Your task to perform on an android device: Go to Reddit.com Image 0: 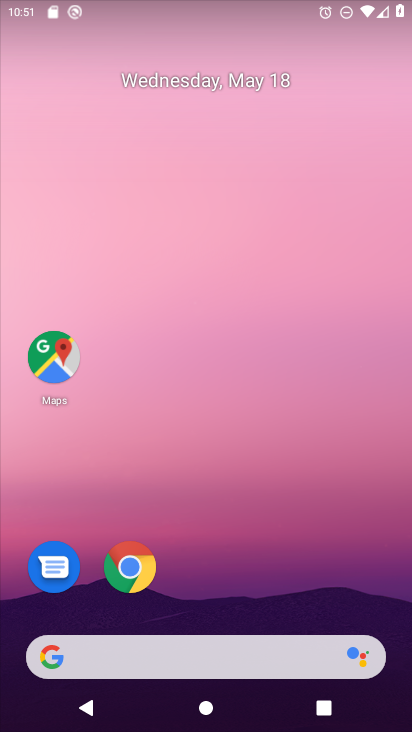
Step 0: drag from (240, 670) to (306, 80)
Your task to perform on an android device: Go to Reddit.com Image 1: 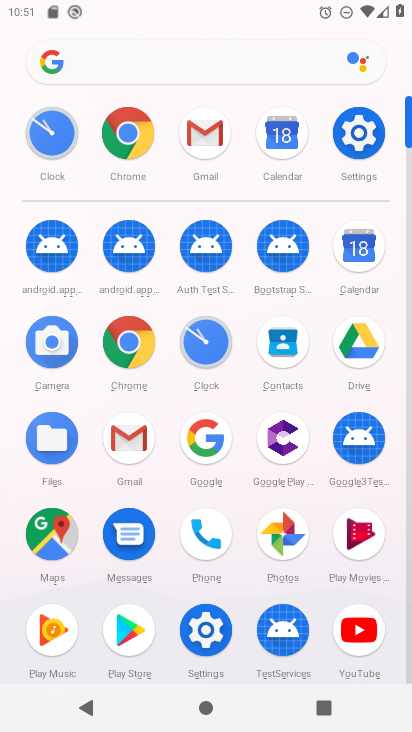
Step 1: click (135, 121)
Your task to perform on an android device: Go to Reddit.com Image 2: 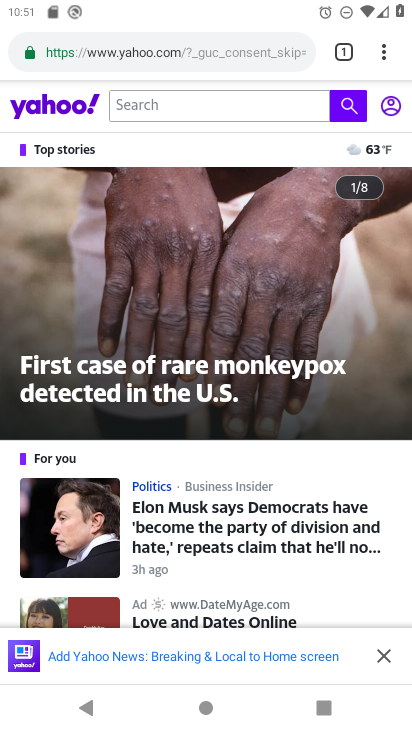
Step 2: click (156, 62)
Your task to perform on an android device: Go to Reddit.com Image 3: 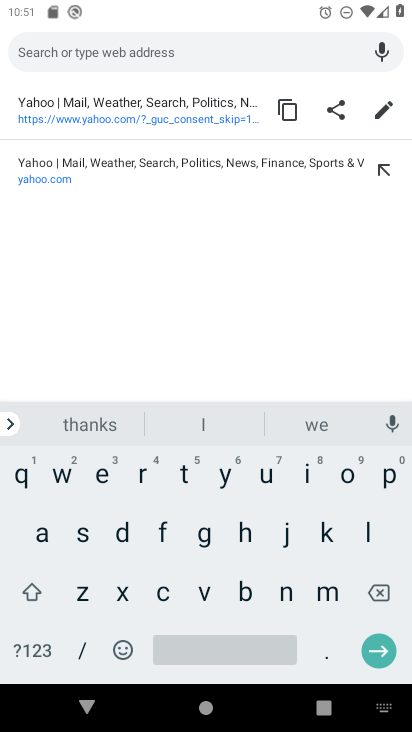
Step 3: click (133, 485)
Your task to perform on an android device: Go to Reddit.com Image 4: 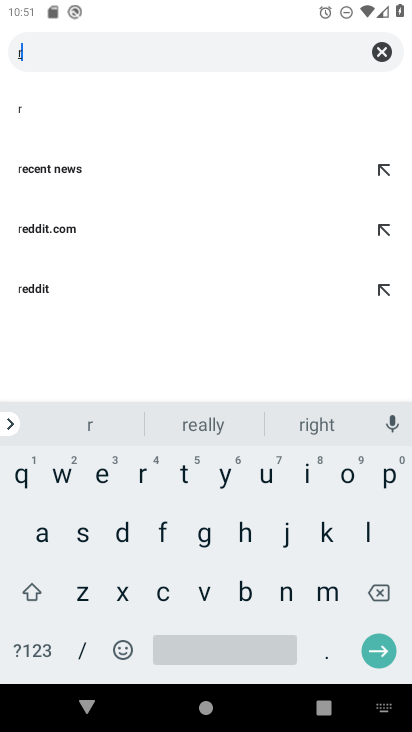
Step 4: click (105, 478)
Your task to perform on an android device: Go to Reddit.com Image 5: 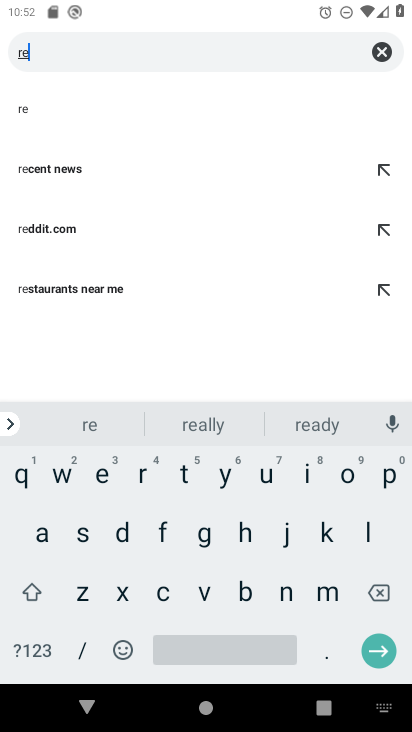
Step 5: click (77, 226)
Your task to perform on an android device: Go to Reddit.com Image 6: 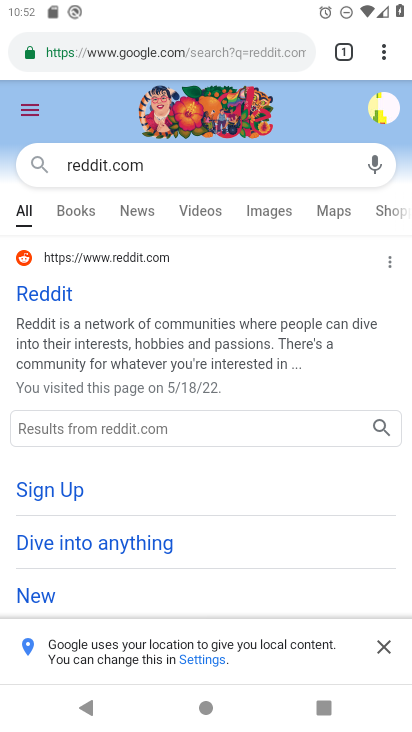
Step 6: click (23, 344)
Your task to perform on an android device: Go to Reddit.com Image 7: 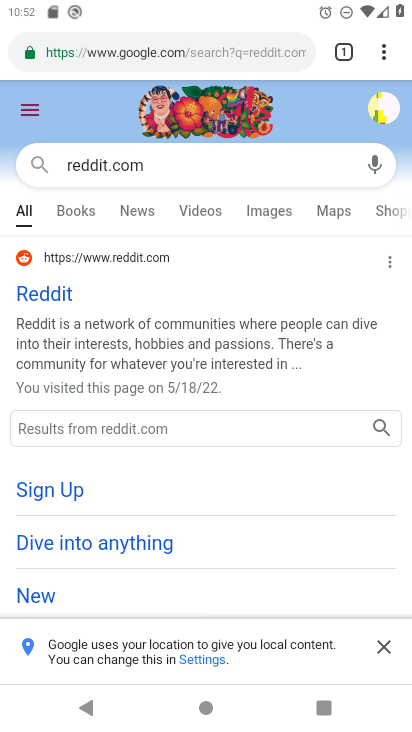
Step 7: click (40, 304)
Your task to perform on an android device: Go to Reddit.com Image 8: 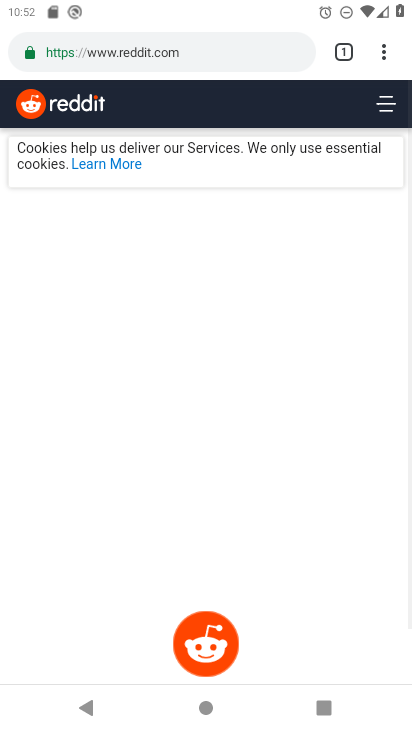
Step 8: click (48, 288)
Your task to perform on an android device: Go to Reddit.com Image 9: 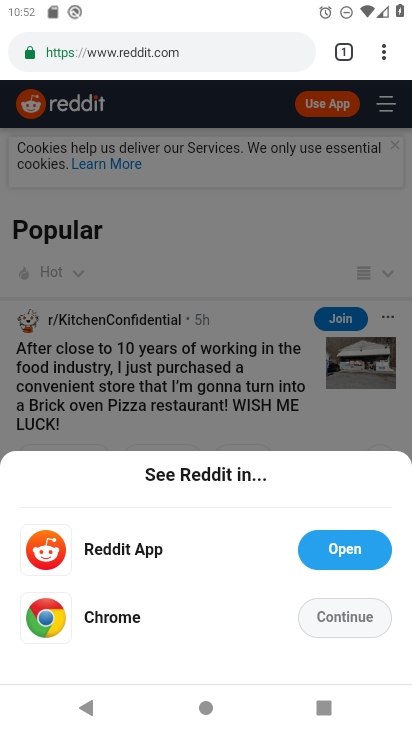
Step 9: click (160, 618)
Your task to perform on an android device: Go to Reddit.com Image 10: 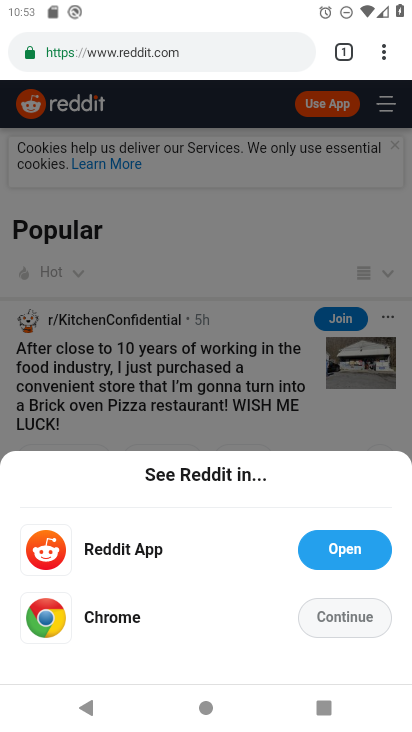
Step 10: click (354, 612)
Your task to perform on an android device: Go to Reddit.com Image 11: 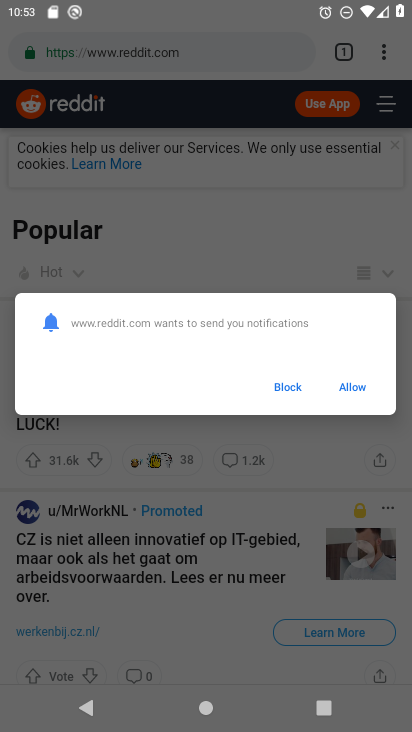
Step 11: click (343, 383)
Your task to perform on an android device: Go to Reddit.com Image 12: 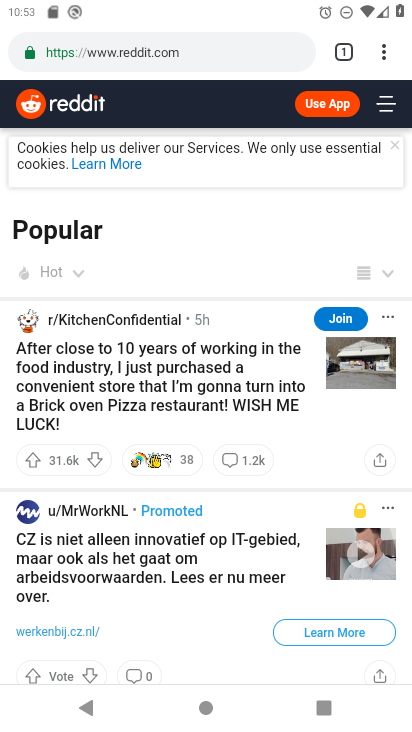
Step 12: task complete